Your task to perform on an android device: set default search engine in the chrome app Image 0: 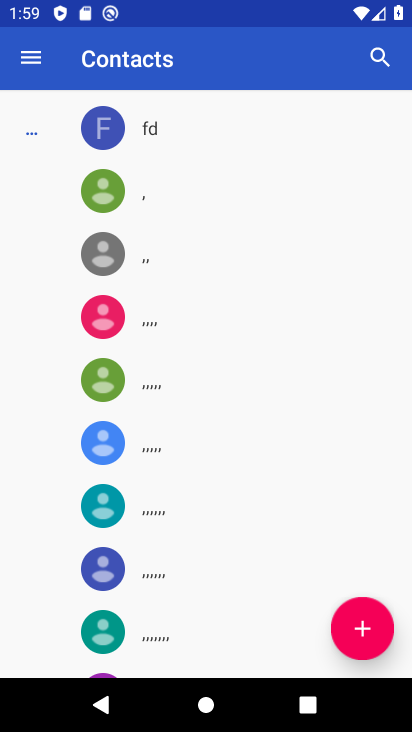
Step 0: press home button
Your task to perform on an android device: set default search engine in the chrome app Image 1: 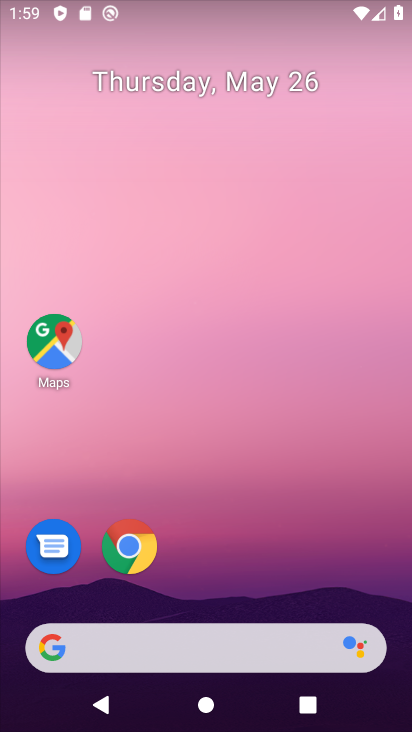
Step 1: click (126, 551)
Your task to perform on an android device: set default search engine in the chrome app Image 2: 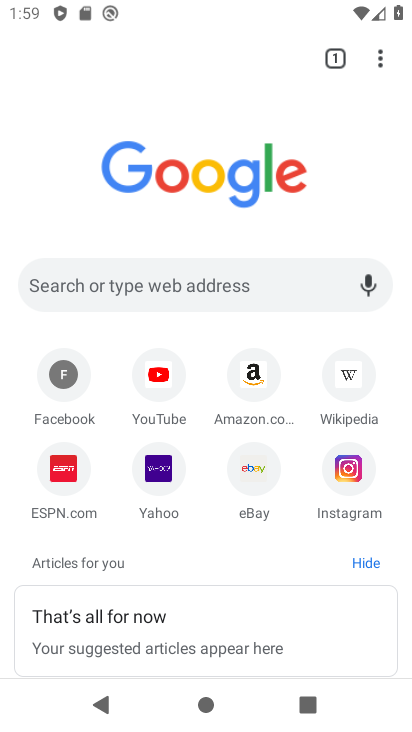
Step 2: click (373, 58)
Your task to perform on an android device: set default search engine in the chrome app Image 3: 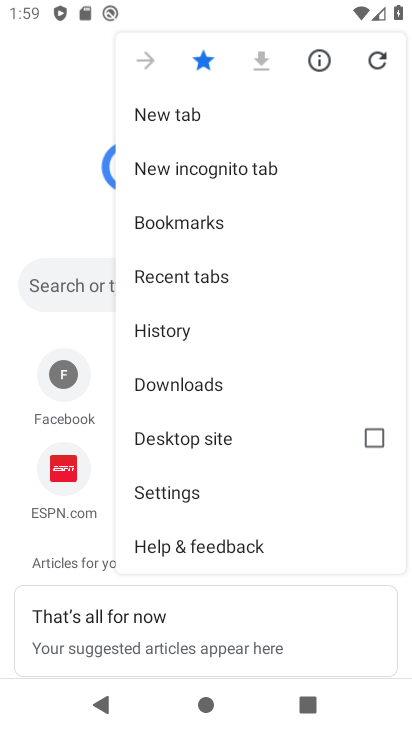
Step 3: click (203, 488)
Your task to perform on an android device: set default search engine in the chrome app Image 4: 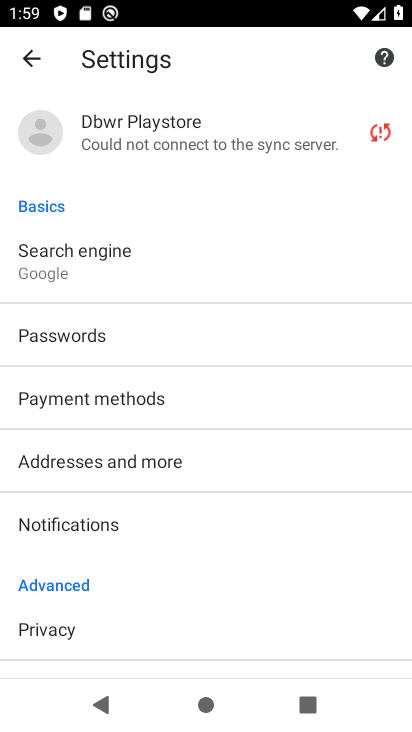
Step 4: click (100, 261)
Your task to perform on an android device: set default search engine in the chrome app Image 5: 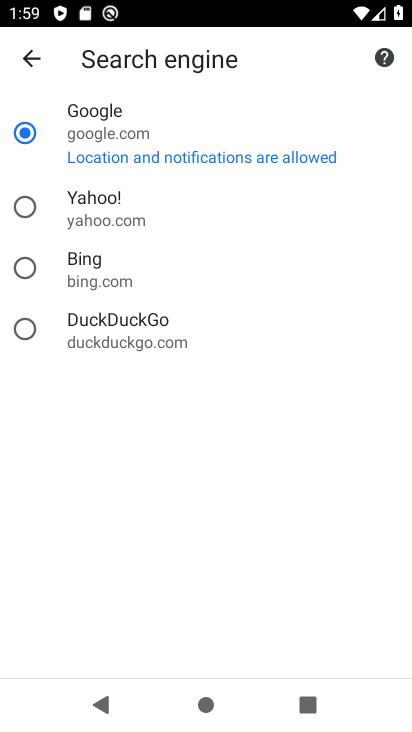
Step 5: click (50, 207)
Your task to perform on an android device: set default search engine in the chrome app Image 6: 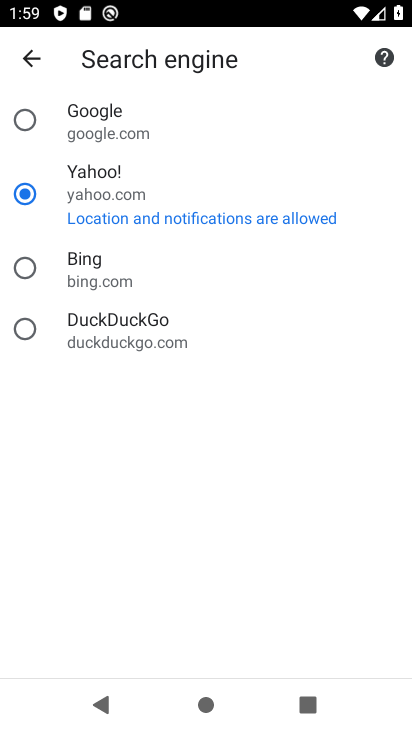
Step 6: task complete